Your task to perform on an android device: open the mobile data screen to see how much data has been used Image 0: 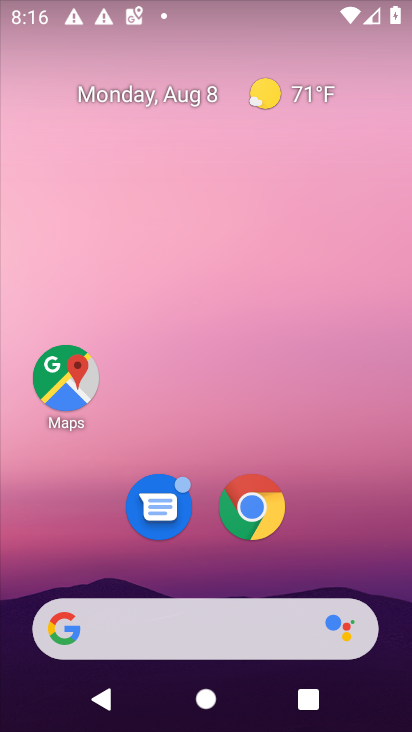
Step 0: drag from (205, 570) to (158, 9)
Your task to perform on an android device: open the mobile data screen to see how much data has been used Image 1: 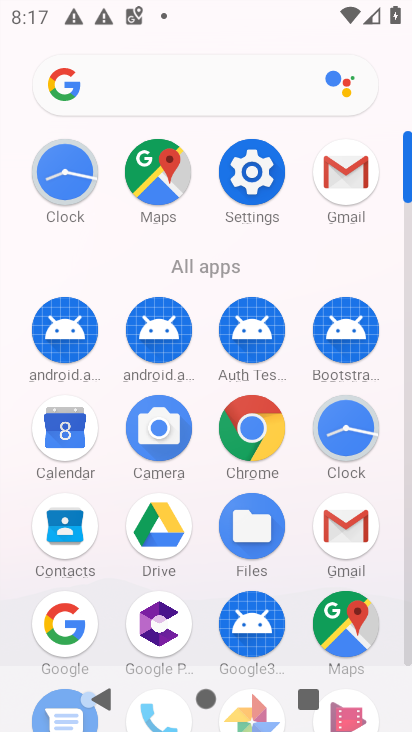
Step 1: click (238, 185)
Your task to perform on an android device: open the mobile data screen to see how much data has been used Image 2: 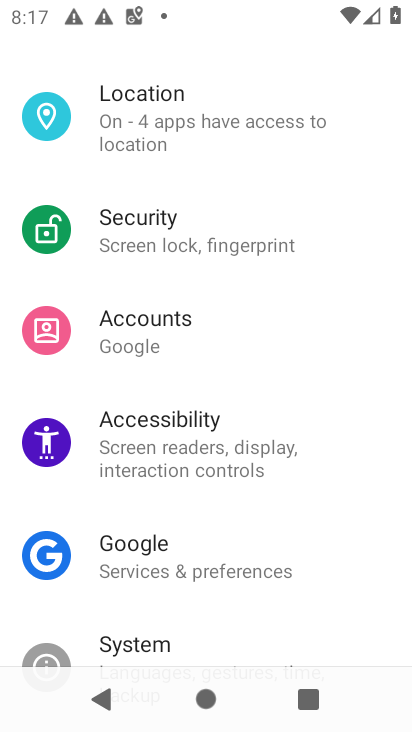
Step 2: drag from (238, 185) to (369, 513)
Your task to perform on an android device: open the mobile data screen to see how much data has been used Image 3: 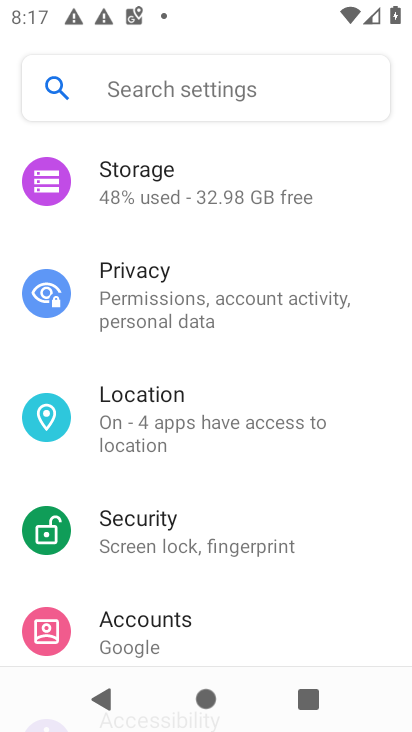
Step 3: drag from (316, 139) to (288, 526)
Your task to perform on an android device: open the mobile data screen to see how much data has been used Image 4: 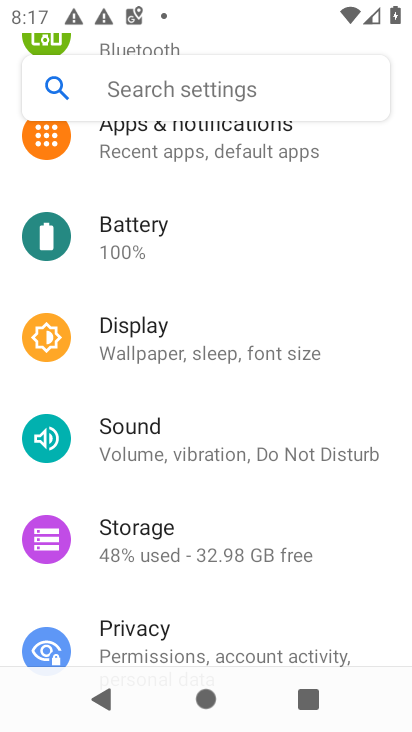
Step 4: drag from (322, 251) to (240, 574)
Your task to perform on an android device: open the mobile data screen to see how much data has been used Image 5: 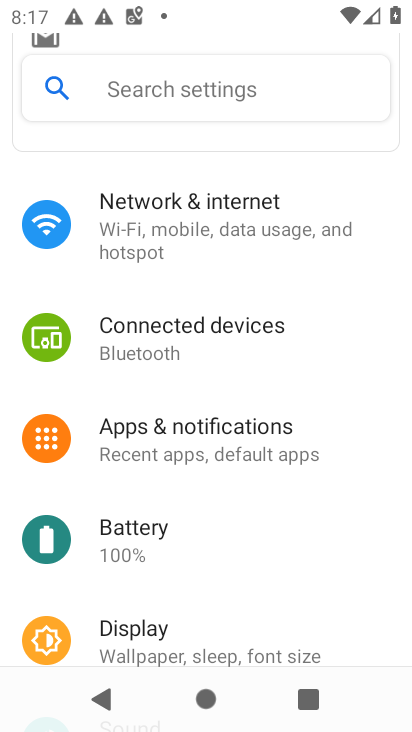
Step 5: click (137, 224)
Your task to perform on an android device: open the mobile data screen to see how much data has been used Image 6: 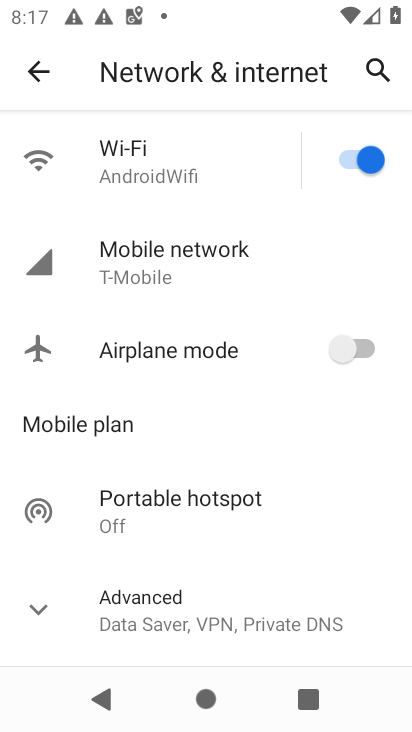
Step 6: click (155, 246)
Your task to perform on an android device: open the mobile data screen to see how much data has been used Image 7: 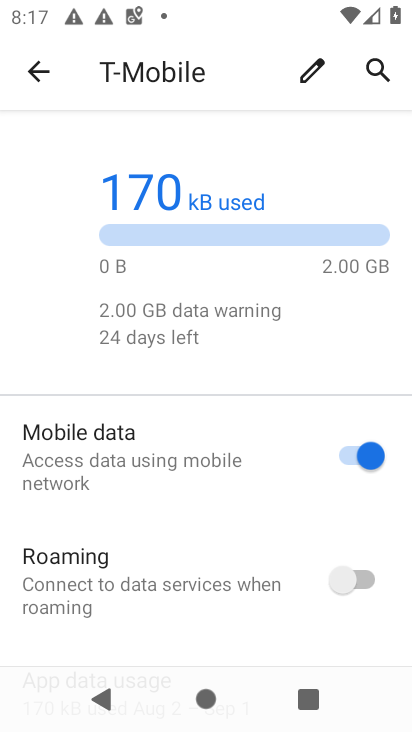
Step 7: task complete